Your task to perform on an android device: open app "Walmart Shopping & Grocery" (install if not already installed), go to login, and select forgot password Image 0: 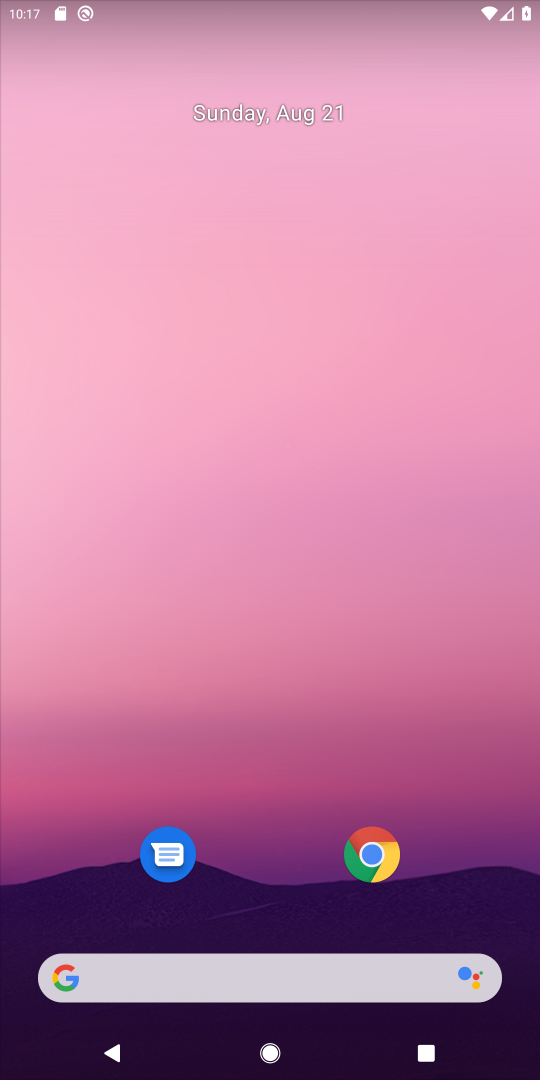
Step 0: drag from (285, 931) to (289, 171)
Your task to perform on an android device: open app "Walmart Shopping & Grocery" (install if not already installed), go to login, and select forgot password Image 1: 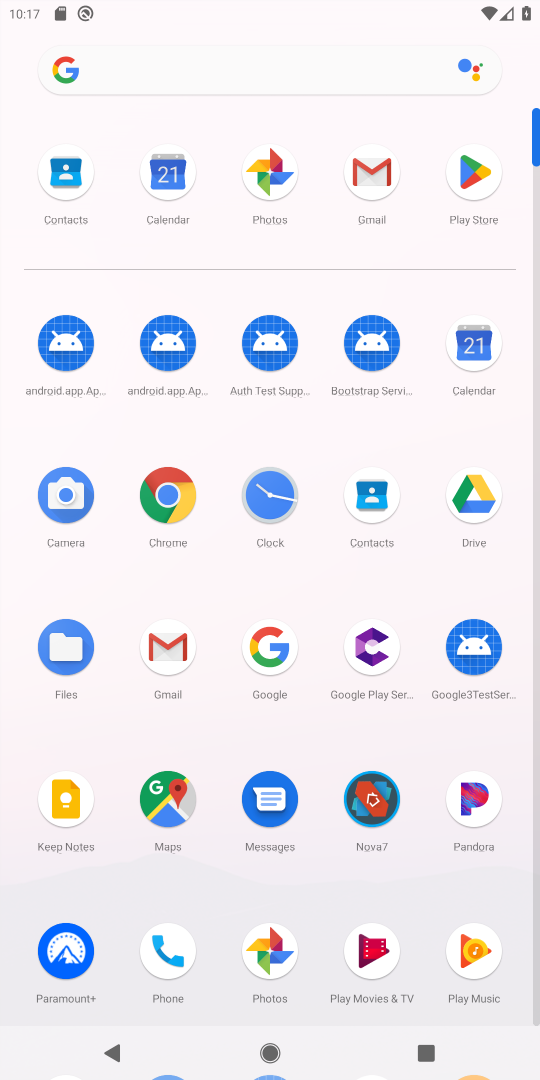
Step 1: click (457, 186)
Your task to perform on an android device: open app "Walmart Shopping & Grocery" (install if not already installed), go to login, and select forgot password Image 2: 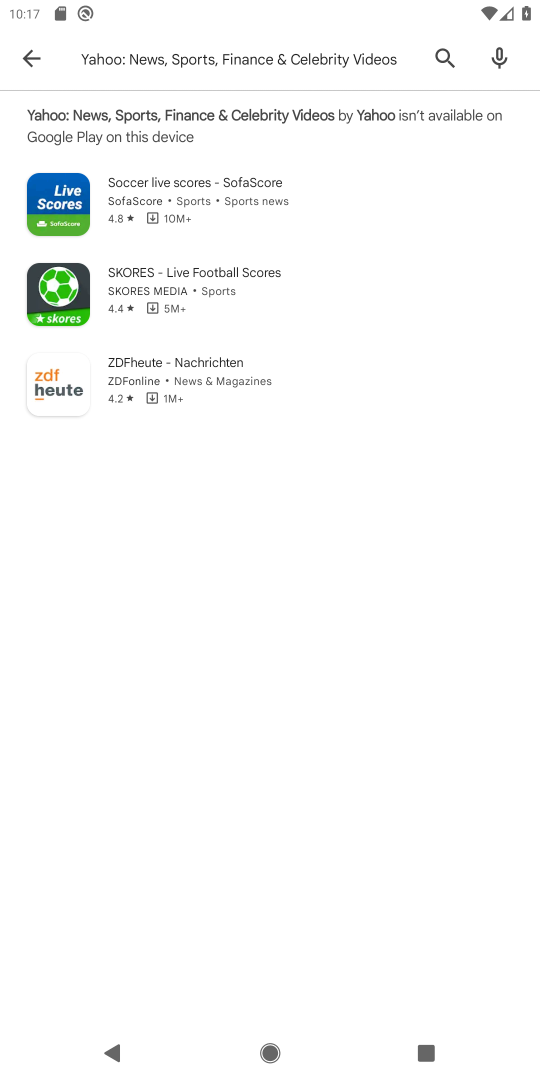
Step 2: click (446, 48)
Your task to perform on an android device: open app "Walmart Shopping & Grocery" (install if not already installed), go to login, and select forgot password Image 3: 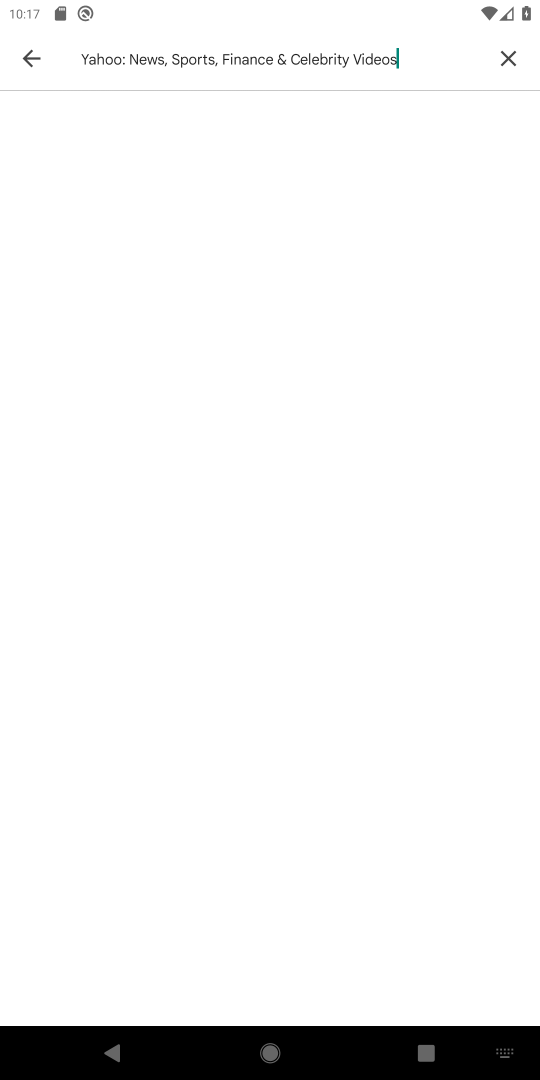
Step 3: click (494, 61)
Your task to perform on an android device: open app "Walmart Shopping & Grocery" (install if not already installed), go to login, and select forgot password Image 4: 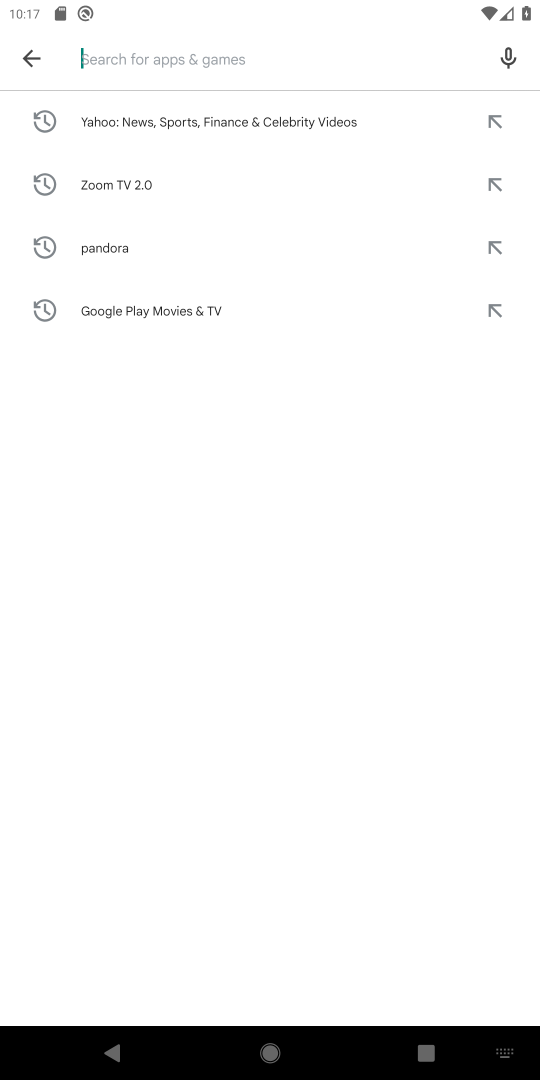
Step 4: type "walmart"
Your task to perform on an android device: open app "Walmart Shopping & Grocery" (install if not already installed), go to login, and select forgot password Image 5: 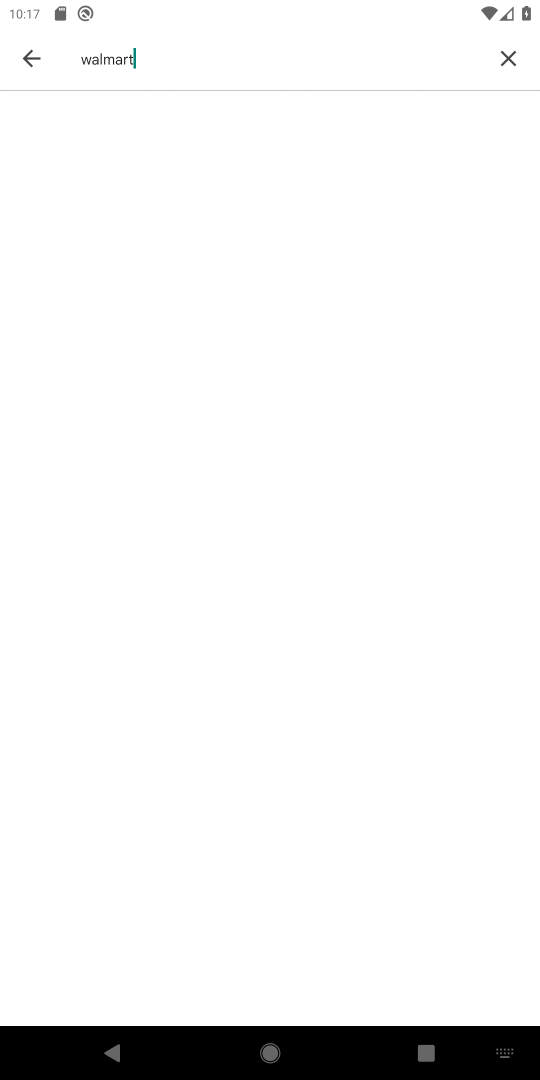
Step 5: task complete